Your task to perform on an android device: check the backup settings in the google photos Image 0: 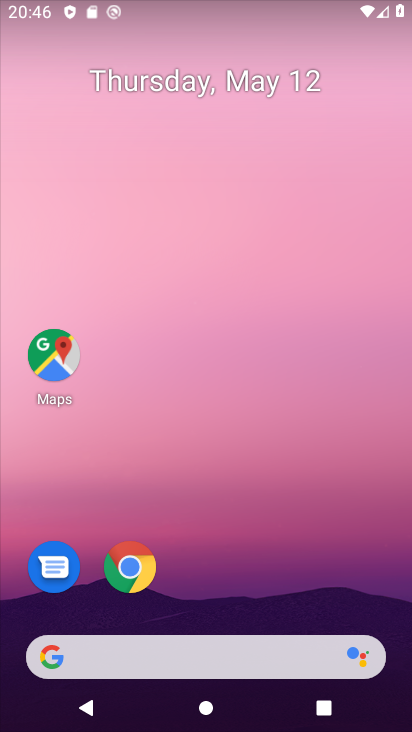
Step 0: drag from (207, 632) to (361, 92)
Your task to perform on an android device: check the backup settings in the google photos Image 1: 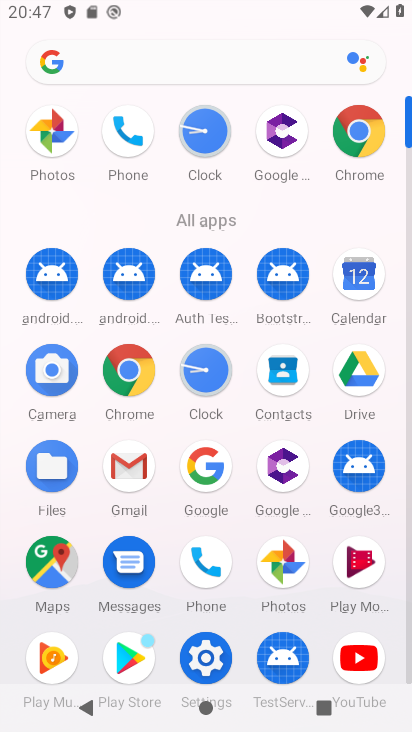
Step 1: click (288, 551)
Your task to perform on an android device: check the backup settings in the google photos Image 2: 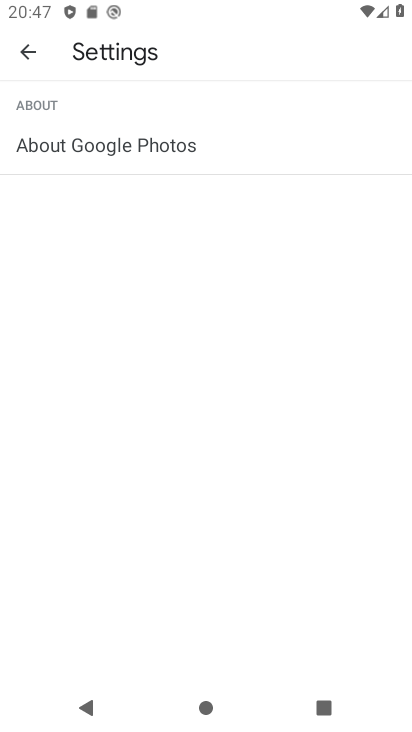
Step 2: click (37, 67)
Your task to perform on an android device: check the backup settings in the google photos Image 3: 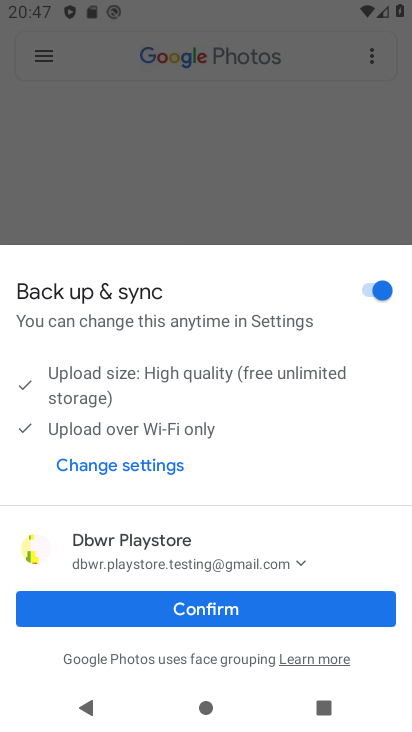
Step 3: click (211, 594)
Your task to perform on an android device: check the backup settings in the google photos Image 4: 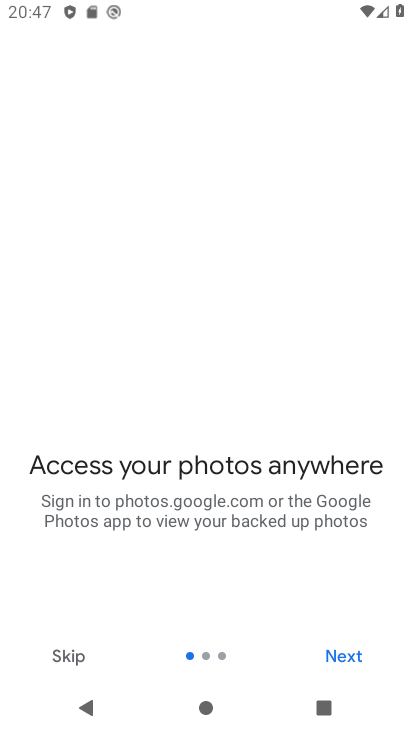
Step 4: click (325, 666)
Your task to perform on an android device: check the backup settings in the google photos Image 5: 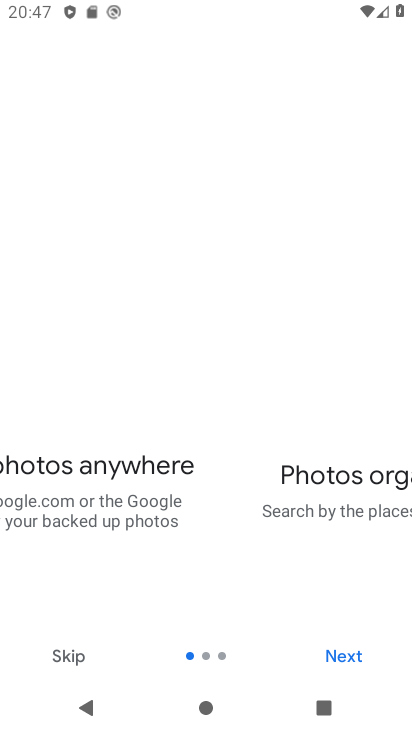
Step 5: click (328, 660)
Your task to perform on an android device: check the backup settings in the google photos Image 6: 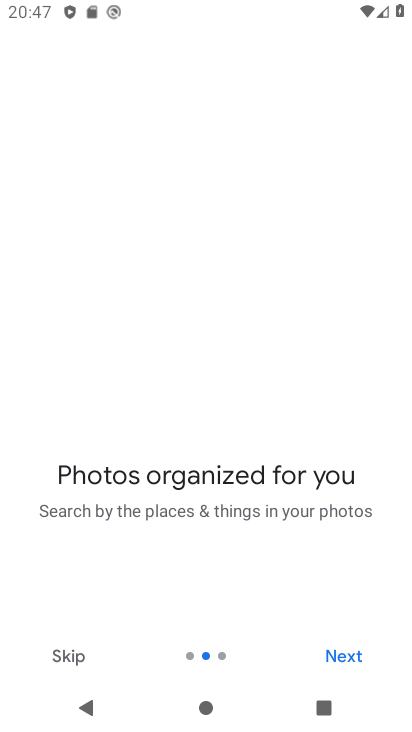
Step 6: click (328, 660)
Your task to perform on an android device: check the backup settings in the google photos Image 7: 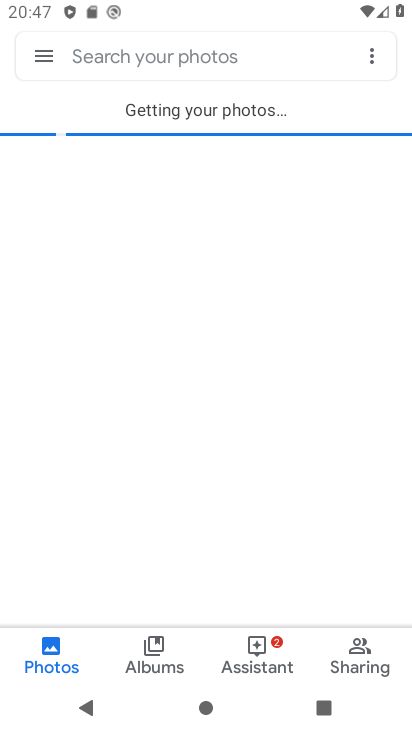
Step 7: click (54, 46)
Your task to perform on an android device: check the backup settings in the google photos Image 8: 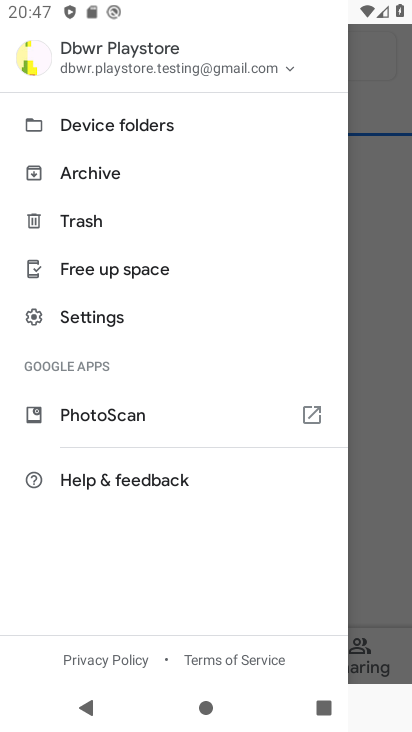
Step 8: click (155, 319)
Your task to perform on an android device: check the backup settings in the google photos Image 9: 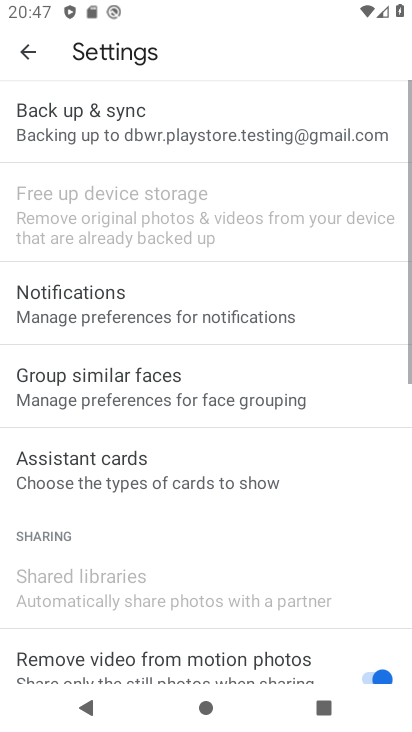
Step 9: click (167, 145)
Your task to perform on an android device: check the backup settings in the google photos Image 10: 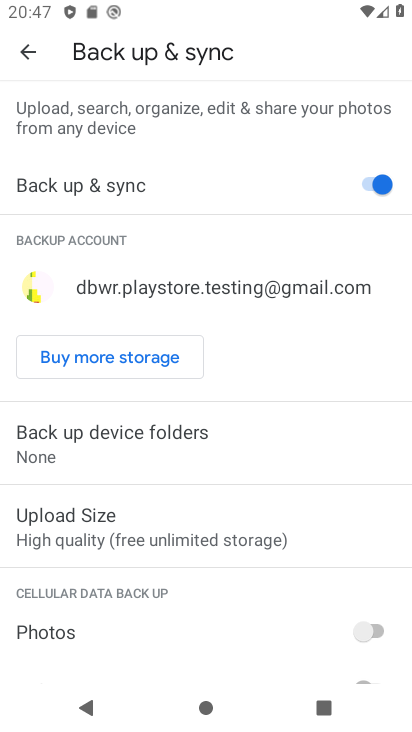
Step 10: task complete